Your task to perform on an android device: refresh tabs in the chrome app Image 0: 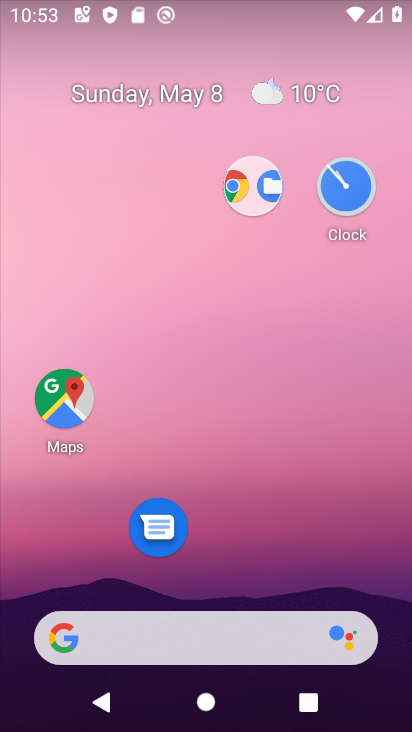
Step 0: drag from (237, 519) to (144, 313)
Your task to perform on an android device: refresh tabs in the chrome app Image 1: 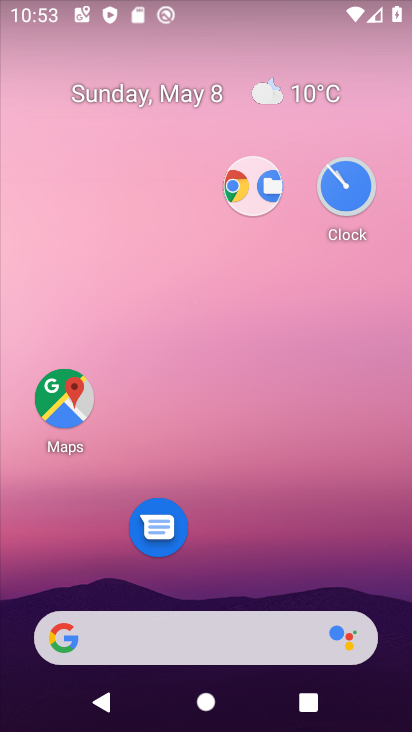
Step 1: click (236, 185)
Your task to perform on an android device: refresh tabs in the chrome app Image 2: 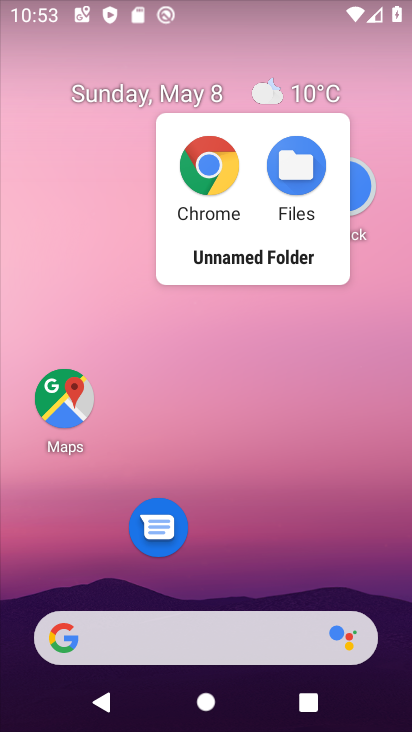
Step 2: click (236, 185)
Your task to perform on an android device: refresh tabs in the chrome app Image 3: 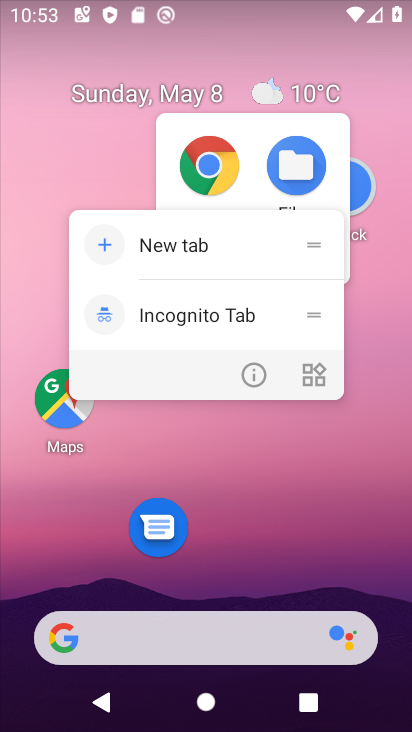
Step 3: click (211, 164)
Your task to perform on an android device: refresh tabs in the chrome app Image 4: 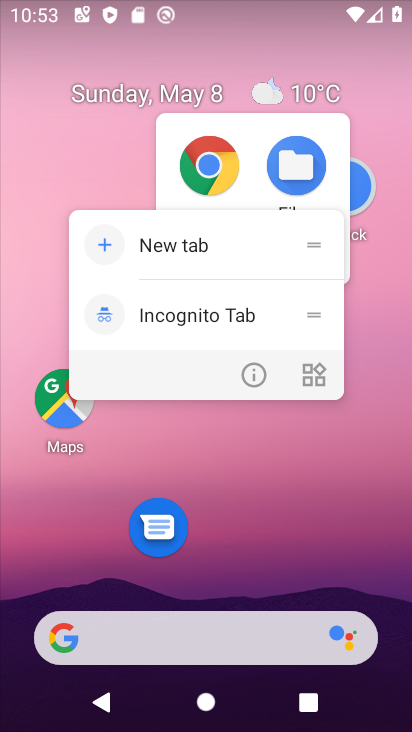
Step 4: click (211, 164)
Your task to perform on an android device: refresh tabs in the chrome app Image 5: 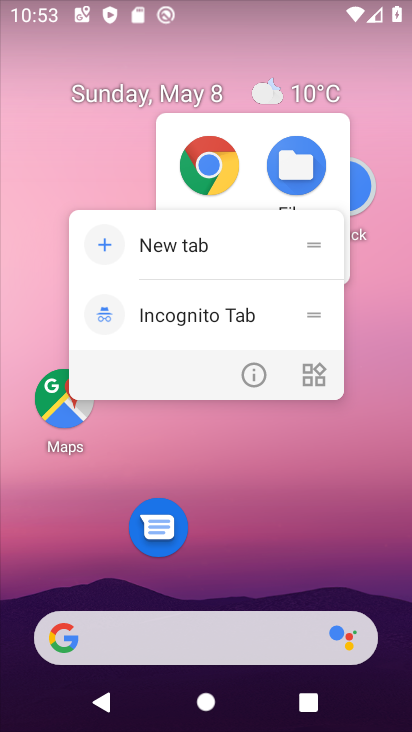
Step 5: click (211, 164)
Your task to perform on an android device: refresh tabs in the chrome app Image 6: 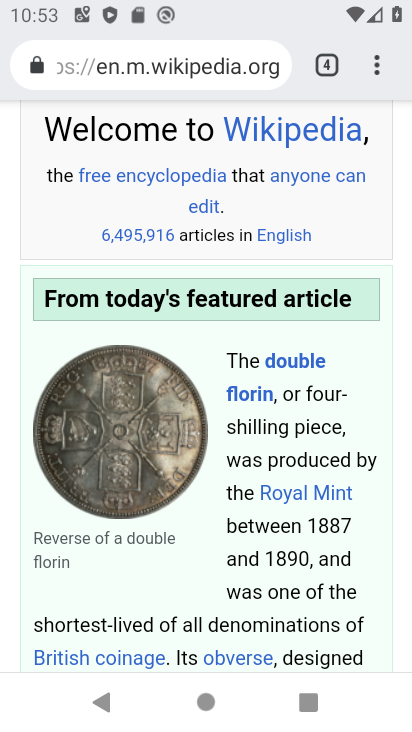
Step 6: click (381, 71)
Your task to perform on an android device: refresh tabs in the chrome app Image 7: 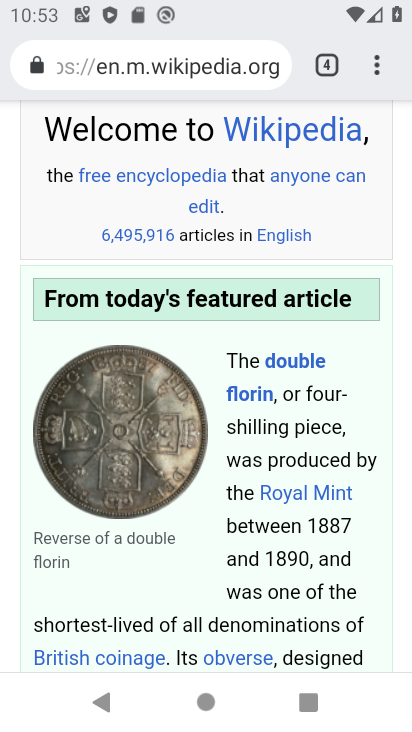
Step 7: click (374, 54)
Your task to perform on an android device: refresh tabs in the chrome app Image 8: 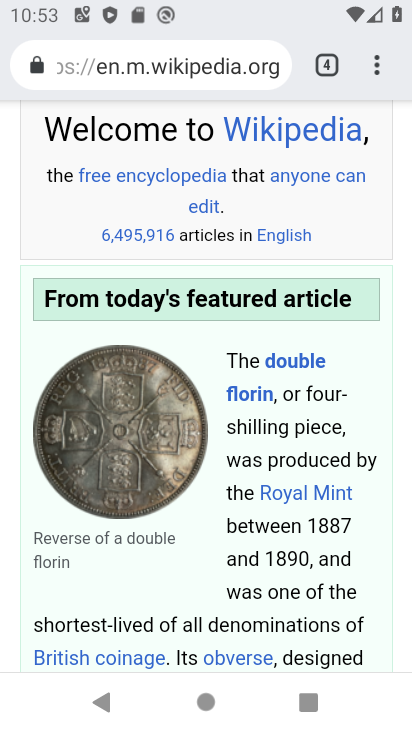
Step 8: click (375, 60)
Your task to perform on an android device: refresh tabs in the chrome app Image 9: 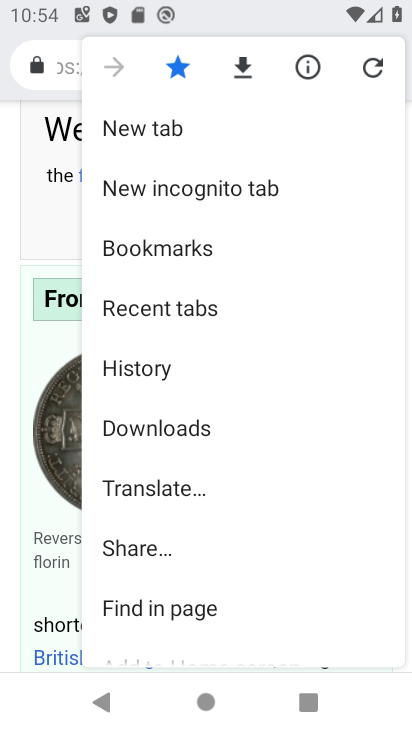
Step 9: click (164, 305)
Your task to perform on an android device: refresh tabs in the chrome app Image 10: 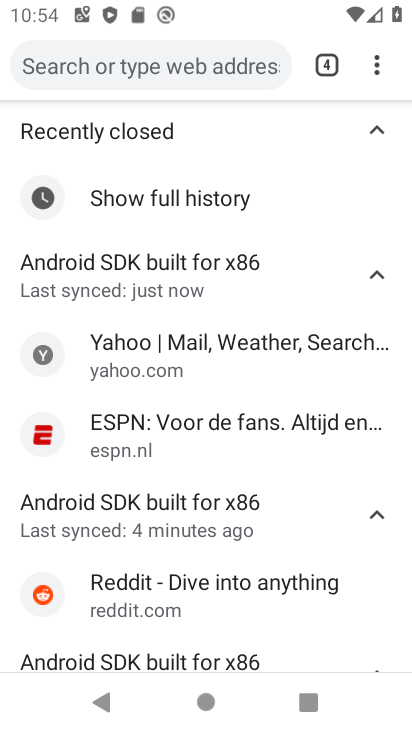
Step 10: click (379, 64)
Your task to perform on an android device: refresh tabs in the chrome app Image 11: 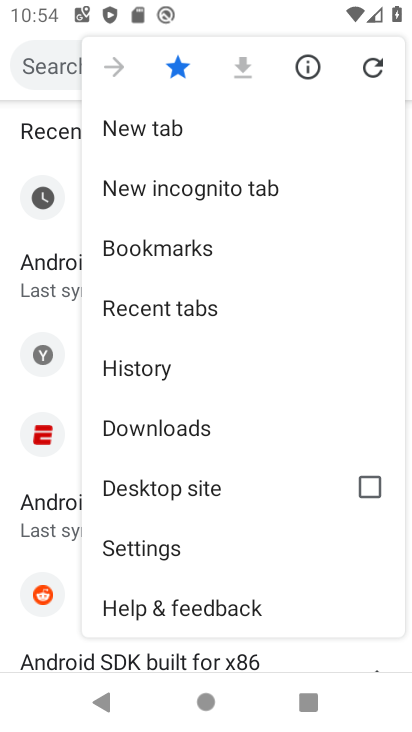
Step 11: click (379, 64)
Your task to perform on an android device: refresh tabs in the chrome app Image 12: 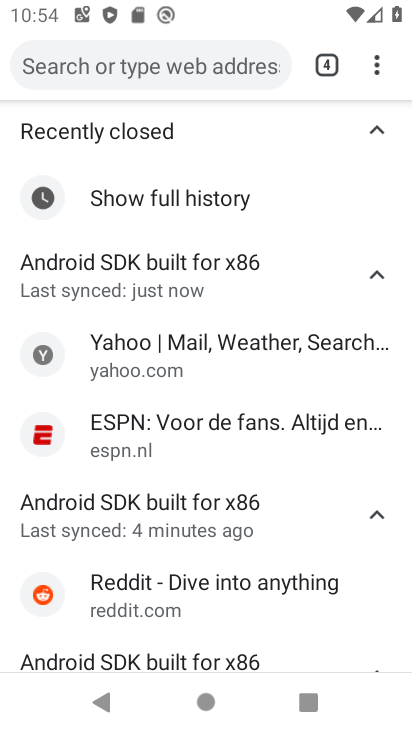
Step 12: click (379, 64)
Your task to perform on an android device: refresh tabs in the chrome app Image 13: 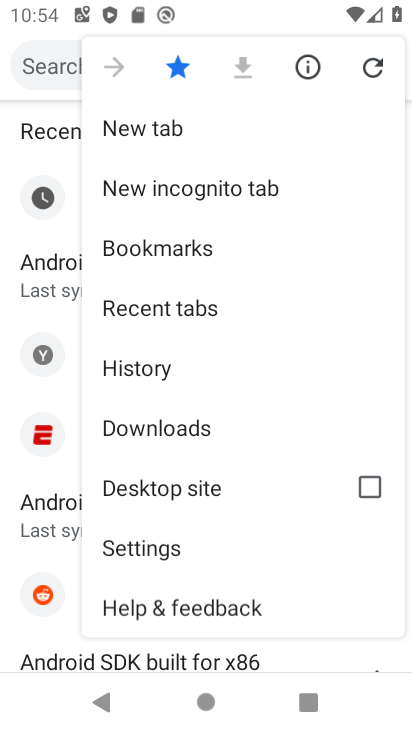
Step 13: click (379, 64)
Your task to perform on an android device: refresh tabs in the chrome app Image 14: 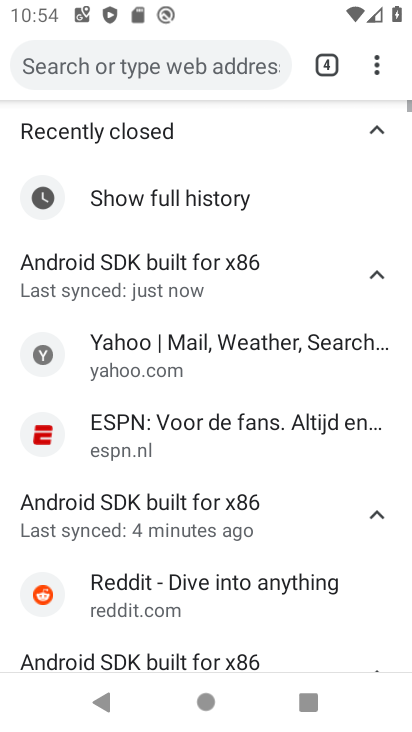
Step 14: click (379, 64)
Your task to perform on an android device: refresh tabs in the chrome app Image 15: 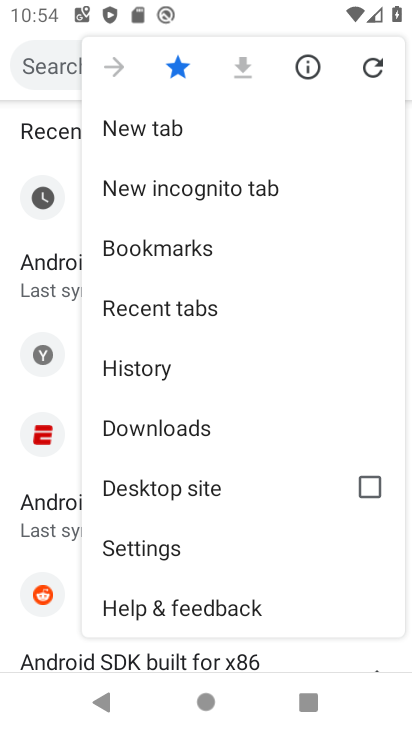
Step 15: click (364, 71)
Your task to perform on an android device: refresh tabs in the chrome app Image 16: 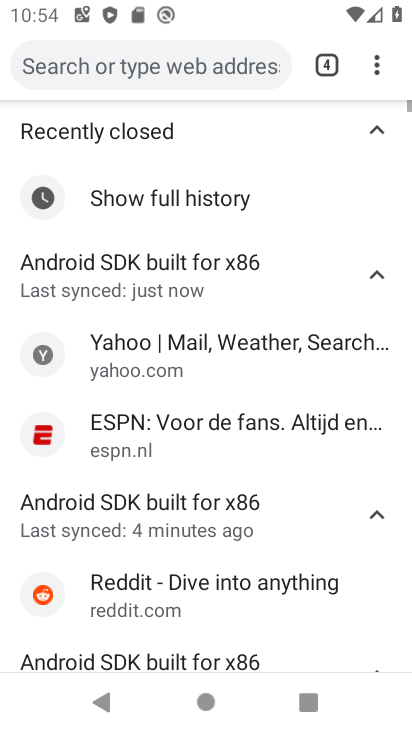
Step 16: click (364, 71)
Your task to perform on an android device: refresh tabs in the chrome app Image 17: 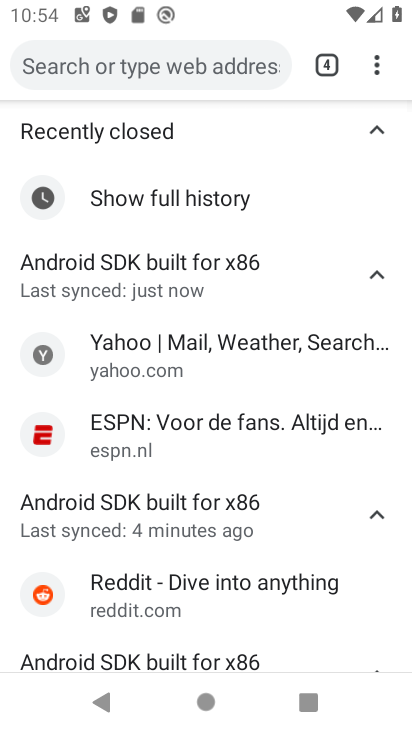
Step 17: task complete